Your task to perform on an android device: Go to Maps Image 0: 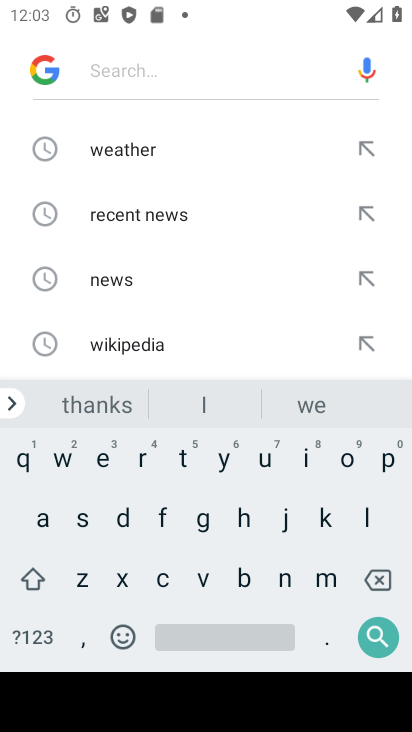
Step 0: press home button
Your task to perform on an android device: Go to Maps Image 1: 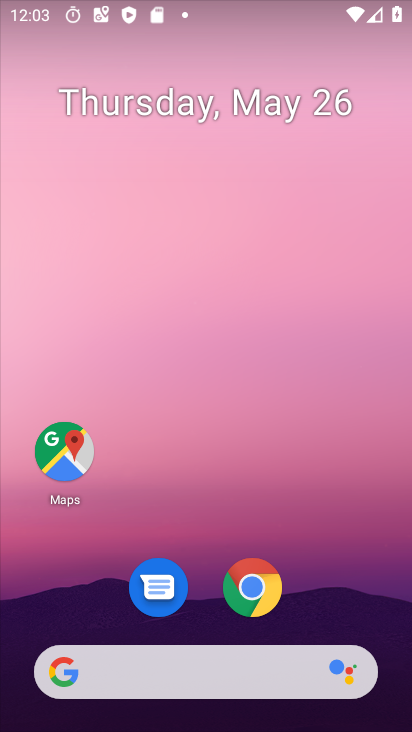
Step 1: drag from (257, 671) to (236, 132)
Your task to perform on an android device: Go to Maps Image 2: 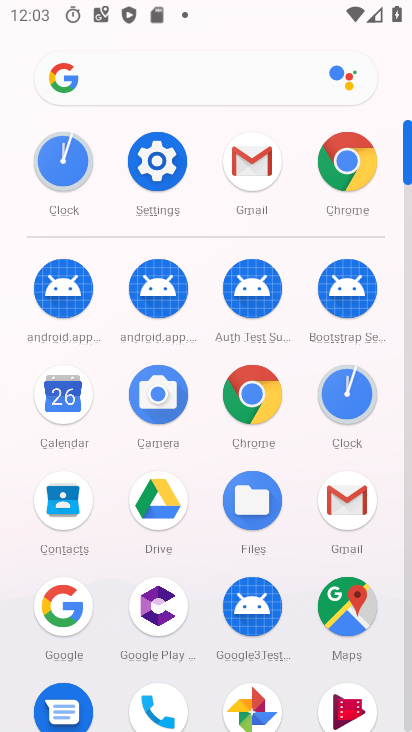
Step 2: click (337, 596)
Your task to perform on an android device: Go to Maps Image 3: 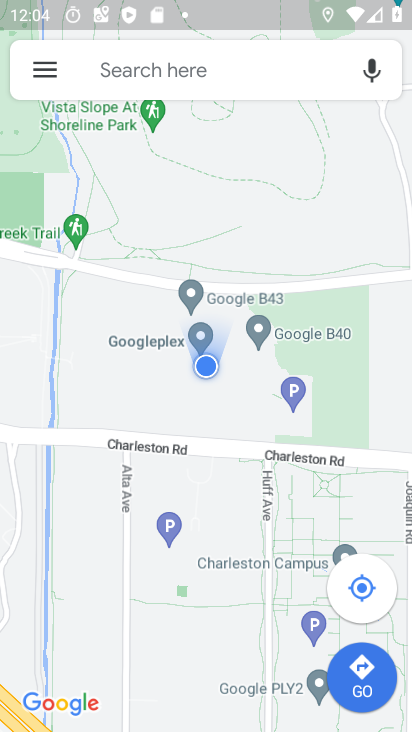
Step 3: click (366, 588)
Your task to perform on an android device: Go to Maps Image 4: 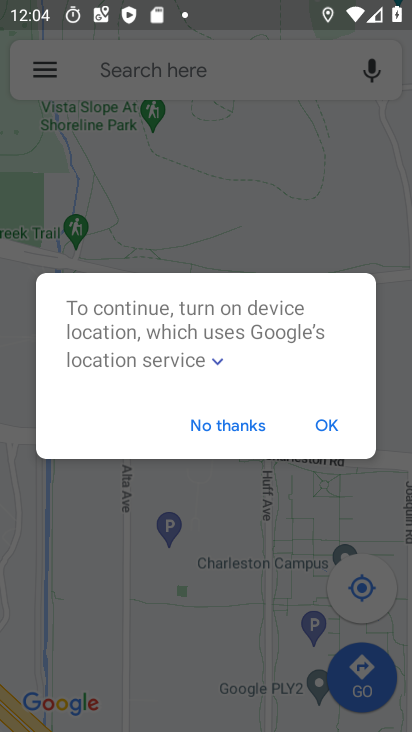
Step 4: click (331, 413)
Your task to perform on an android device: Go to Maps Image 5: 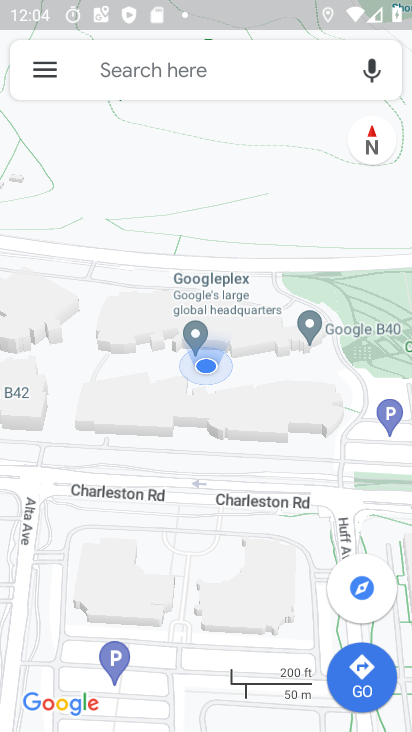
Step 5: task complete